Your task to perform on an android device: set the stopwatch Image 0: 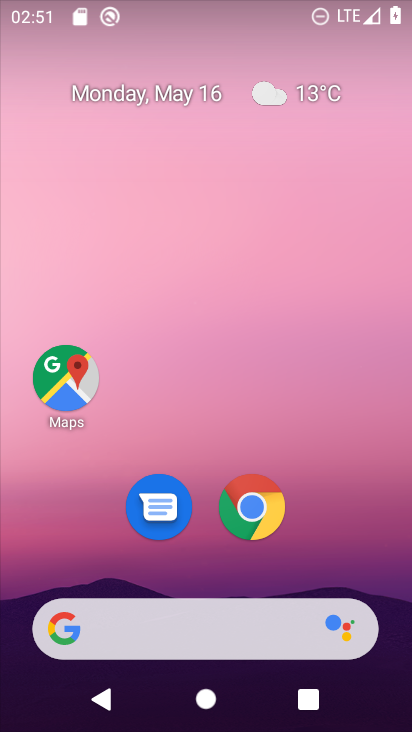
Step 0: drag from (357, 485) to (291, 28)
Your task to perform on an android device: set the stopwatch Image 1: 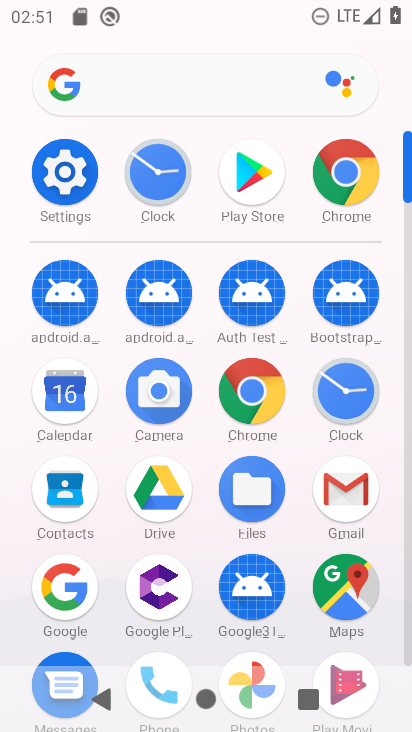
Step 1: click (77, 216)
Your task to perform on an android device: set the stopwatch Image 2: 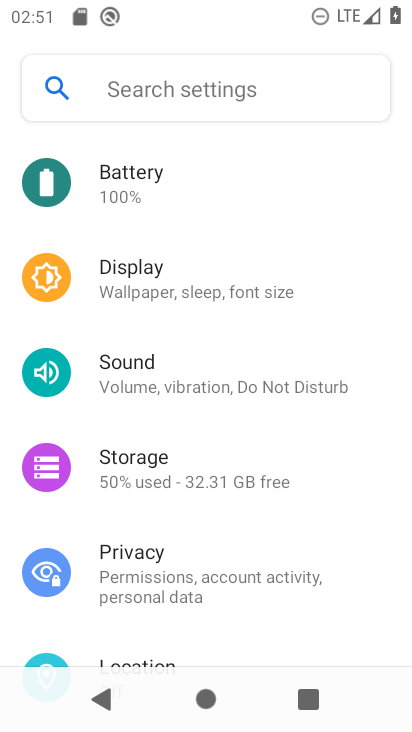
Step 2: press home button
Your task to perform on an android device: set the stopwatch Image 3: 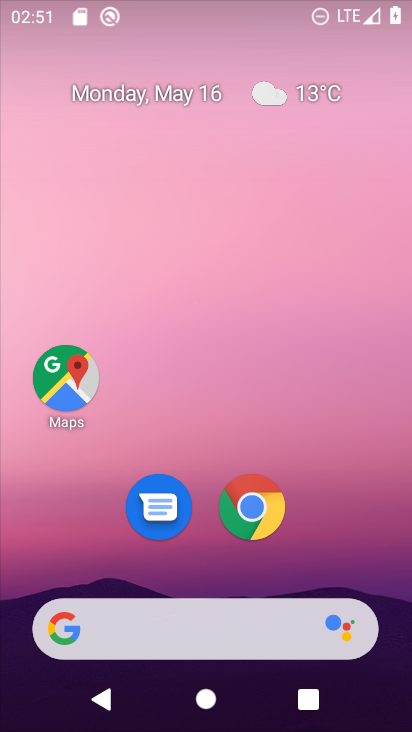
Step 3: drag from (331, 510) to (192, 12)
Your task to perform on an android device: set the stopwatch Image 4: 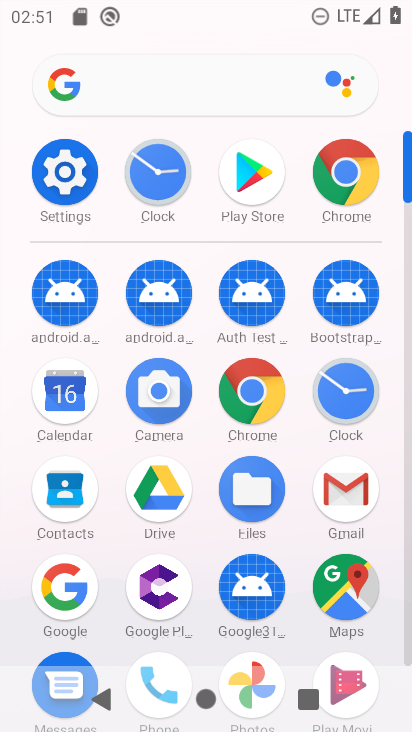
Step 4: click (334, 402)
Your task to perform on an android device: set the stopwatch Image 5: 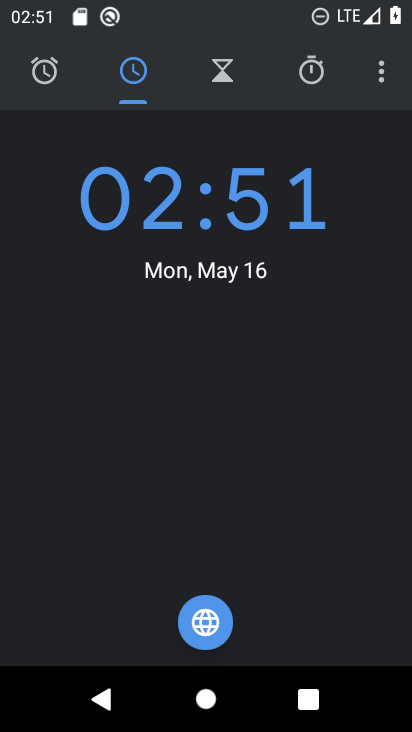
Step 5: click (302, 71)
Your task to perform on an android device: set the stopwatch Image 6: 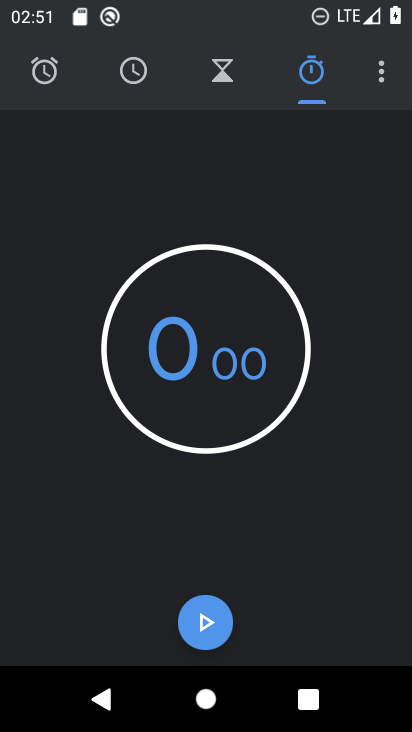
Step 6: click (207, 610)
Your task to perform on an android device: set the stopwatch Image 7: 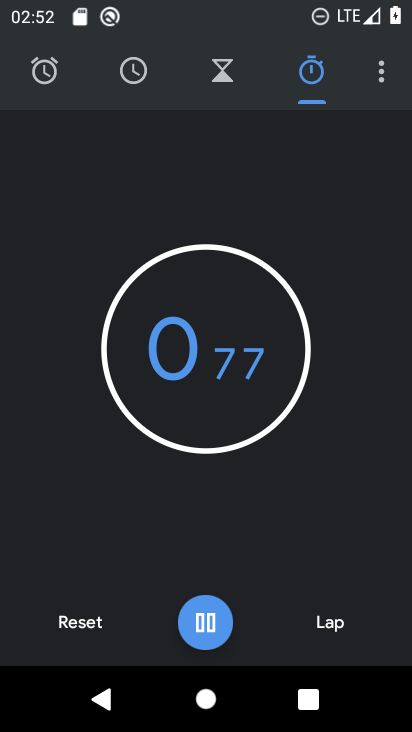
Step 7: task complete